Your task to perform on an android device: What is the news today? Image 0: 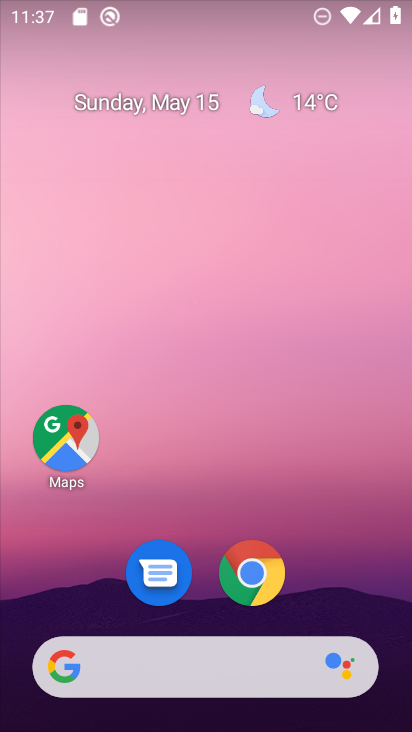
Step 0: click (153, 661)
Your task to perform on an android device: What is the news today? Image 1: 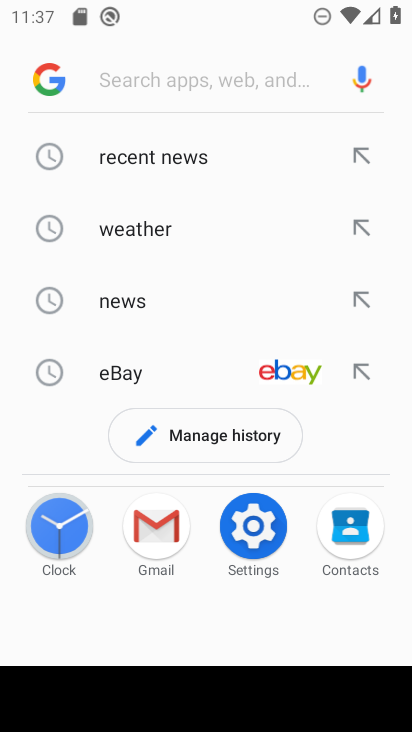
Step 1: click (139, 301)
Your task to perform on an android device: What is the news today? Image 2: 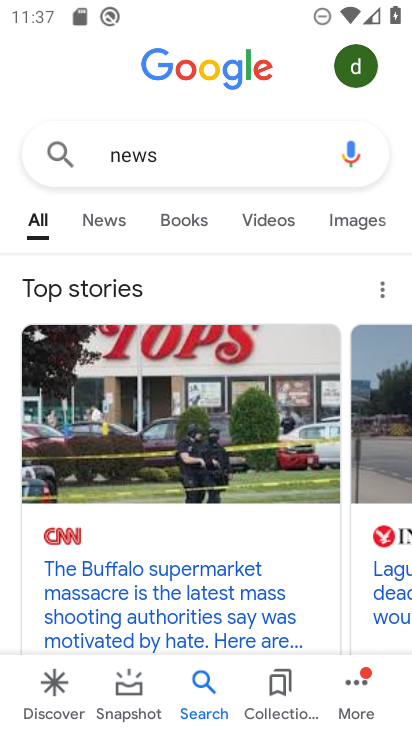
Step 2: task complete